Your task to perform on an android device: turn on showing notifications on the lock screen Image 0: 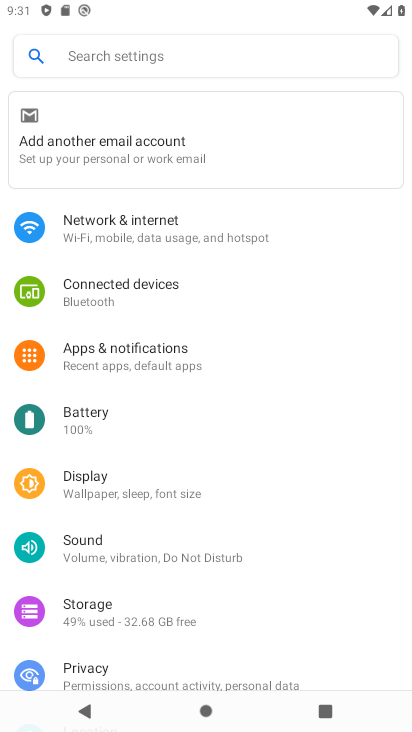
Step 0: click (150, 350)
Your task to perform on an android device: turn on showing notifications on the lock screen Image 1: 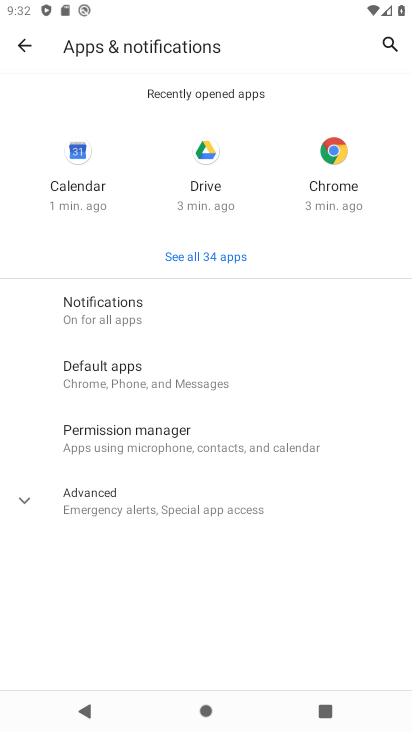
Step 1: click (121, 299)
Your task to perform on an android device: turn on showing notifications on the lock screen Image 2: 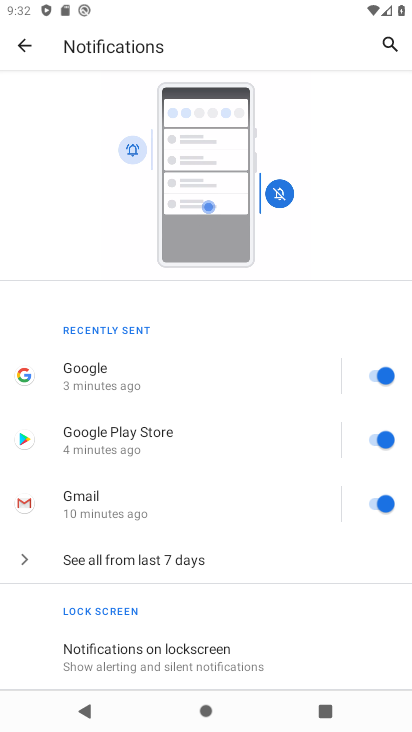
Step 2: click (177, 652)
Your task to perform on an android device: turn on showing notifications on the lock screen Image 3: 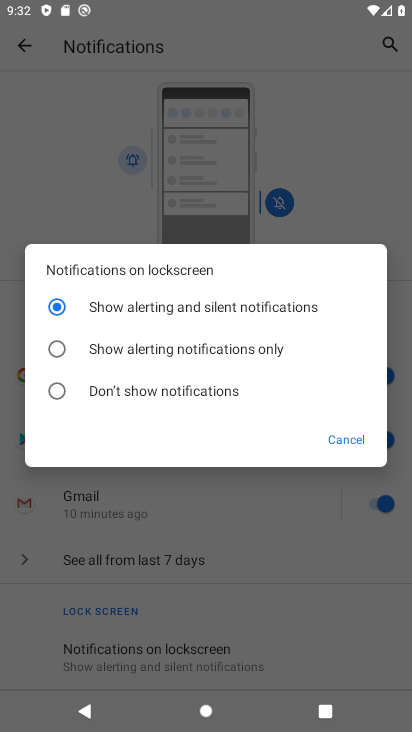
Step 3: task complete